Your task to perform on an android device: What's on my calendar tomorrow? Image 0: 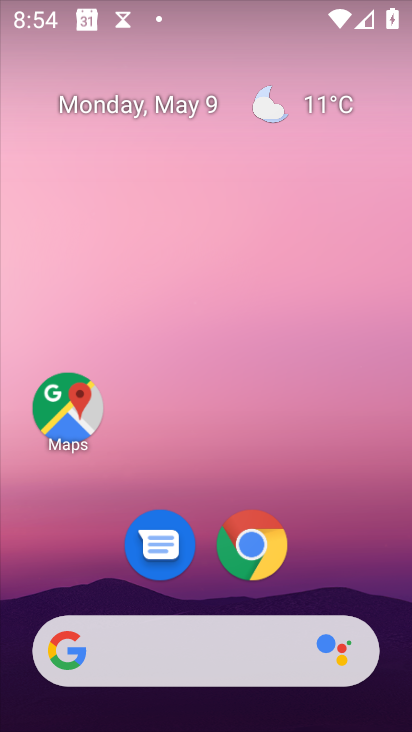
Step 0: drag from (194, 727) to (175, 192)
Your task to perform on an android device: What's on my calendar tomorrow? Image 1: 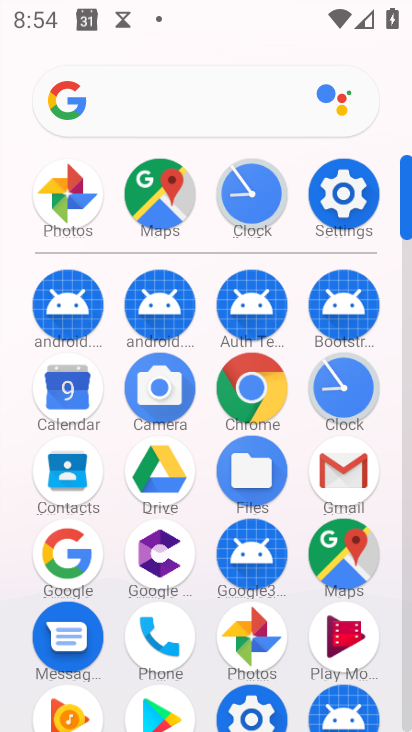
Step 1: click (61, 396)
Your task to perform on an android device: What's on my calendar tomorrow? Image 2: 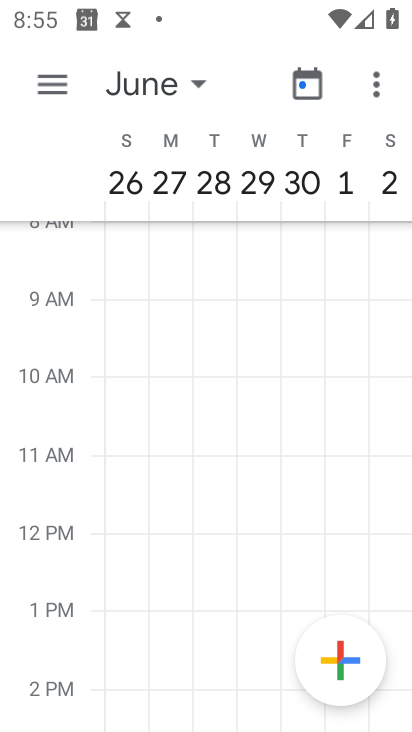
Step 2: click (198, 77)
Your task to perform on an android device: What's on my calendar tomorrow? Image 3: 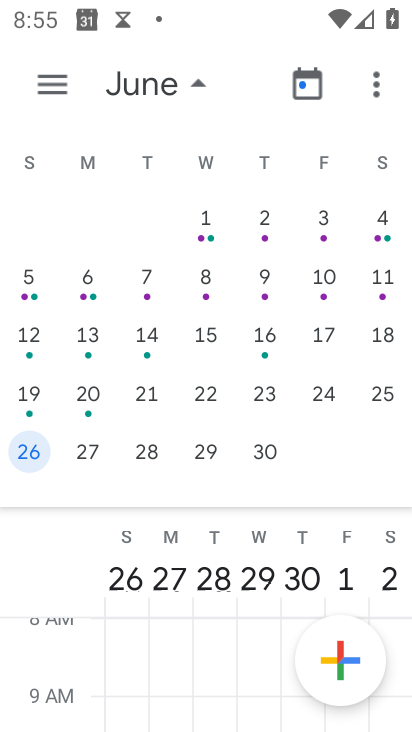
Step 3: drag from (52, 337) to (410, 337)
Your task to perform on an android device: What's on my calendar tomorrow? Image 4: 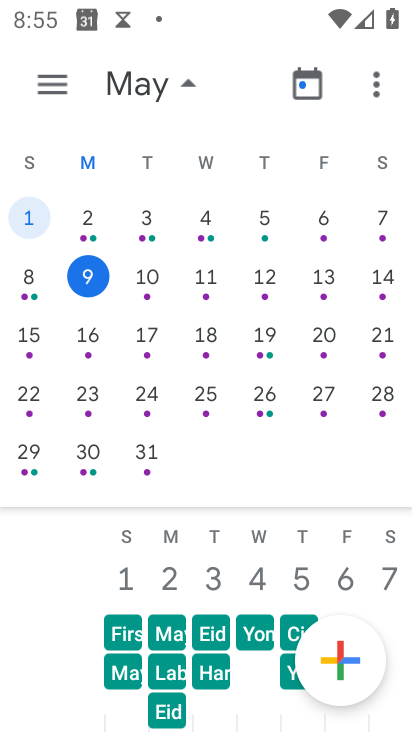
Step 4: click (144, 273)
Your task to perform on an android device: What's on my calendar tomorrow? Image 5: 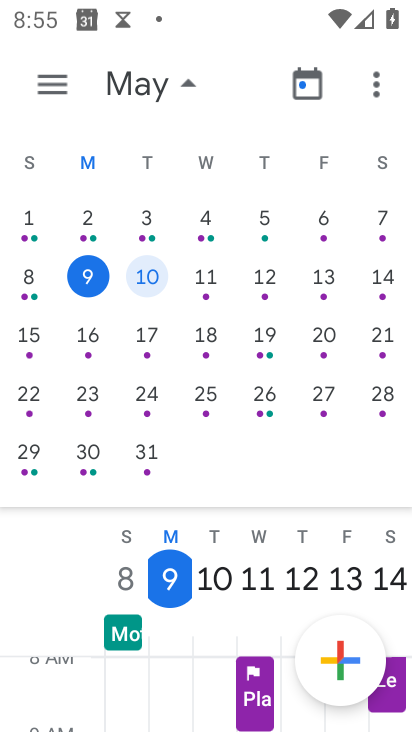
Step 5: task complete